Your task to perform on an android device: open app "Pandora - Music & Podcasts" (install if not already installed) Image 0: 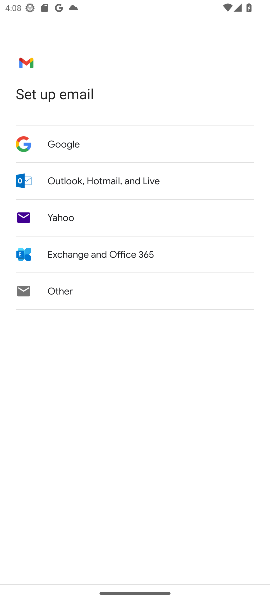
Step 0: press home button
Your task to perform on an android device: open app "Pandora - Music & Podcasts" (install if not already installed) Image 1: 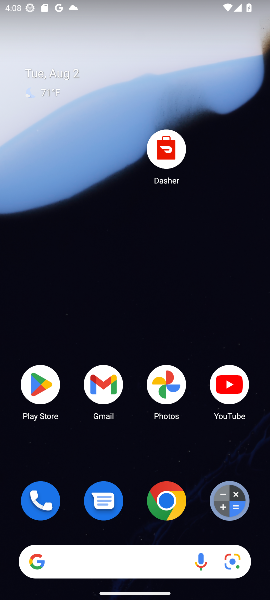
Step 1: click (37, 391)
Your task to perform on an android device: open app "Pandora - Music & Podcasts" (install if not already installed) Image 2: 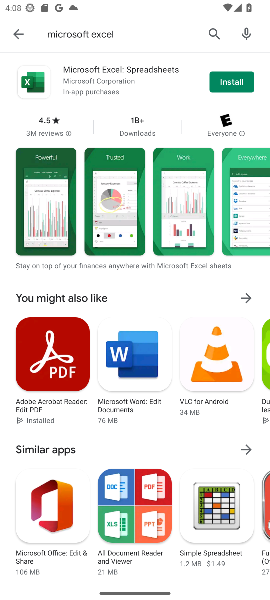
Step 2: click (215, 26)
Your task to perform on an android device: open app "Pandora - Music & Podcasts" (install if not already installed) Image 3: 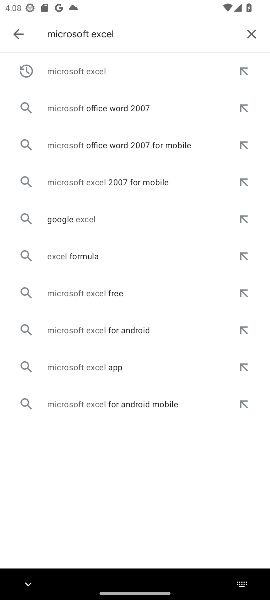
Step 3: click (246, 38)
Your task to perform on an android device: open app "Pandora - Music & Podcasts" (install if not already installed) Image 4: 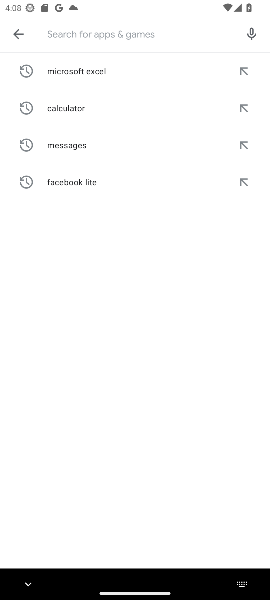
Step 4: type "Pandora - Music & Podcasts"
Your task to perform on an android device: open app "Pandora - Music & Podcasts" (install if not already installed) Image 5: 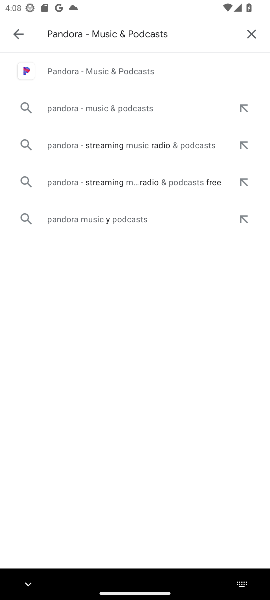
Step 5: click (62, 69)
Your task to perform on an android device: open app "Pandora - Music & Podcasts" (install if not already installed) Image 6: 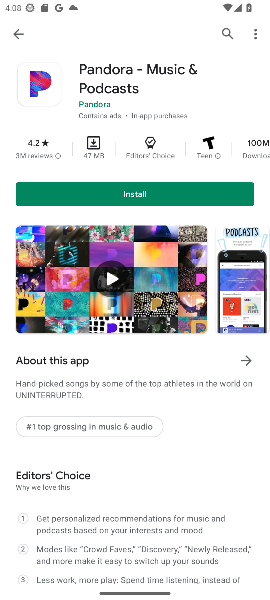
Step 6: click (127, 196)
Your task to perform on an android device: open app "Pandora - Music & Podcasts" (install if not already installed) Image 7: 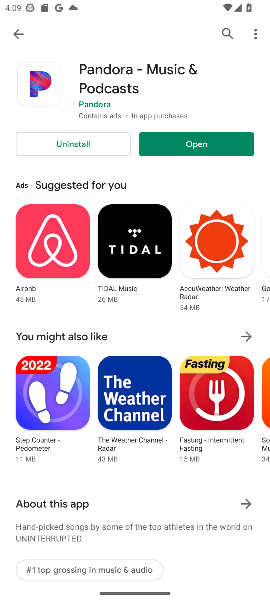
Step 7: click (158, 140)
Your task to perform on an android device: open app "Pandora - Music & Podcasts" (install if not already installed) Image 8: 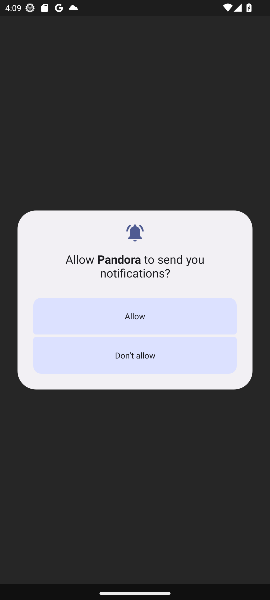
Step 8: task complete